Your task to perform on an android device: see sites visited before in the chrome app Image 0: 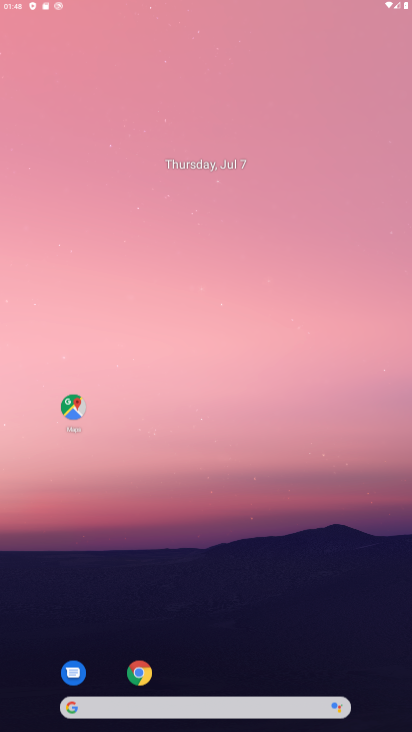
Step 0: drag from (190, 649) to (196, 160)
Your task to perform on an android device: see sites visited before in the chrome app Image 1: 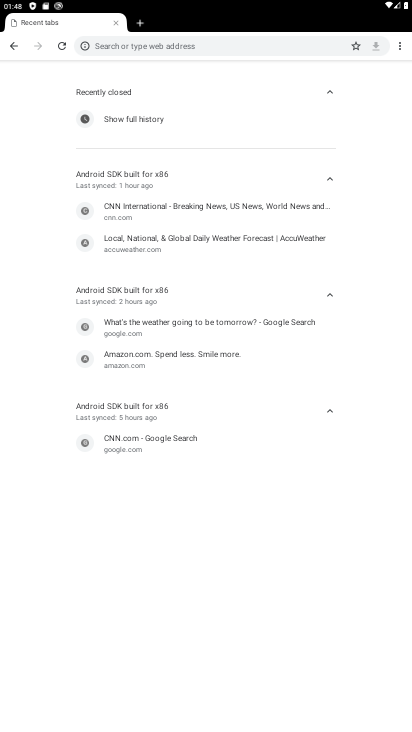
Step 1: press home button
Your task to perform on an android device: see sites visited before in the chrome app Image 2: 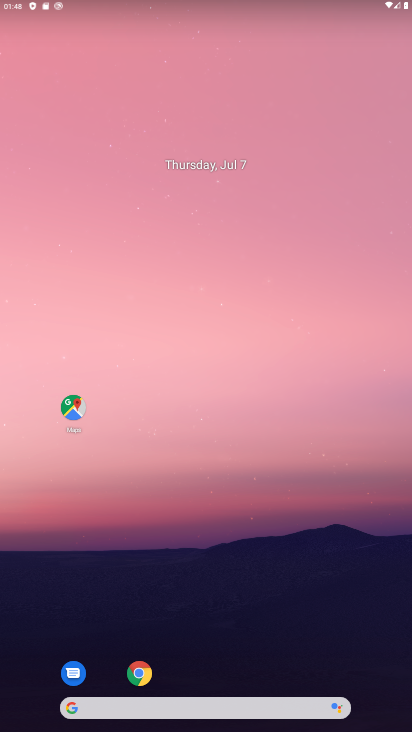
Step 2: click (150, 665)
Your task to perform on an android device: see sites visited before in the chrome app Image 3: 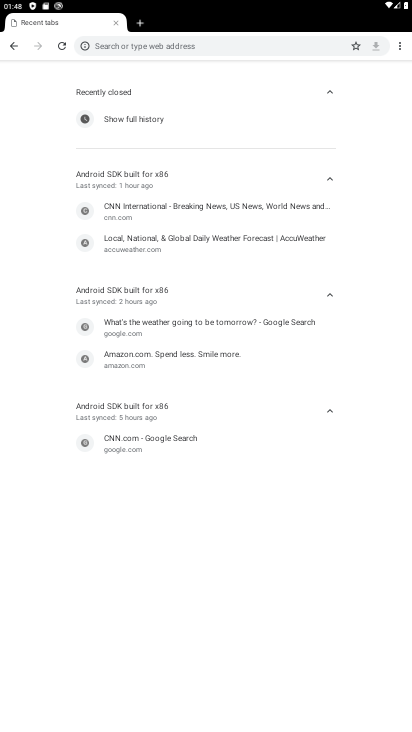
Step 3: task complete